Your task to perform on an android device: Open Google Image 0: 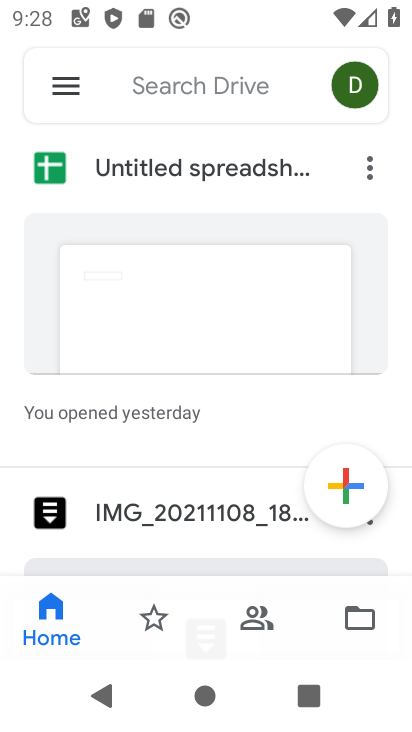
Step 0: press home button
Your task to perform on an android device: Open Google Image 1: 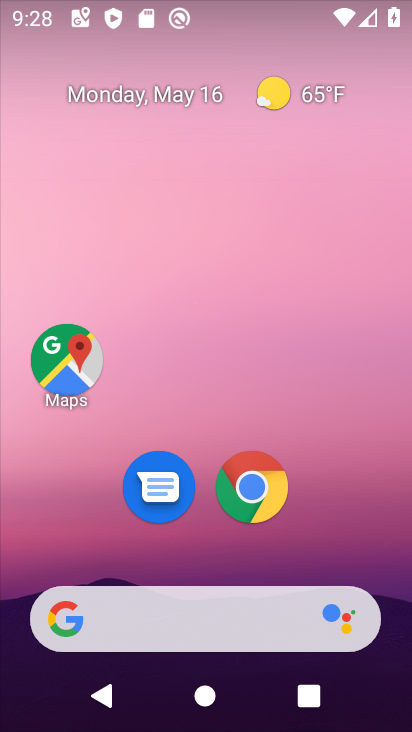
Step 1: drag from (370, 265) to (372, 131)
Your task to perform on an android device: Open Google Image 2: 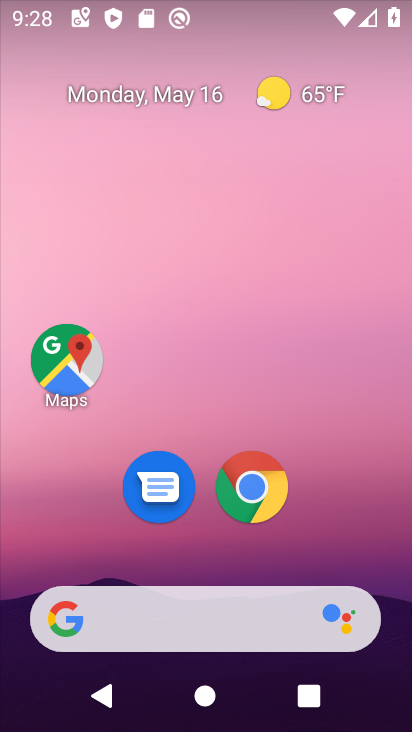
Step 2: drag from (369, 544) to (380, 58)
Your task to perform on an android device: Open Google Image 3: 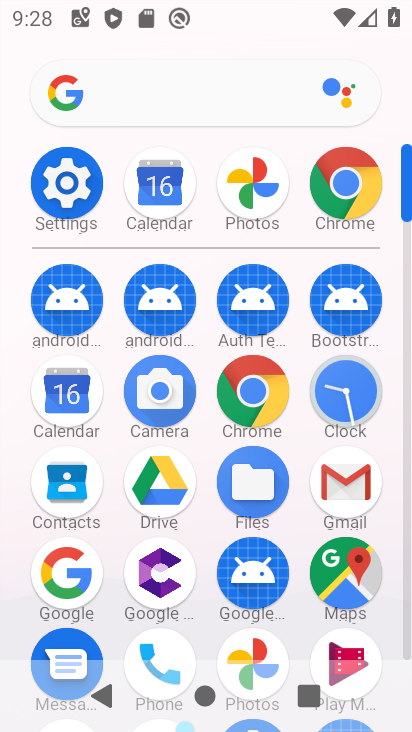
Step 3: click (50, 592)
Your task to perform on an android device: Open Google Image 4: 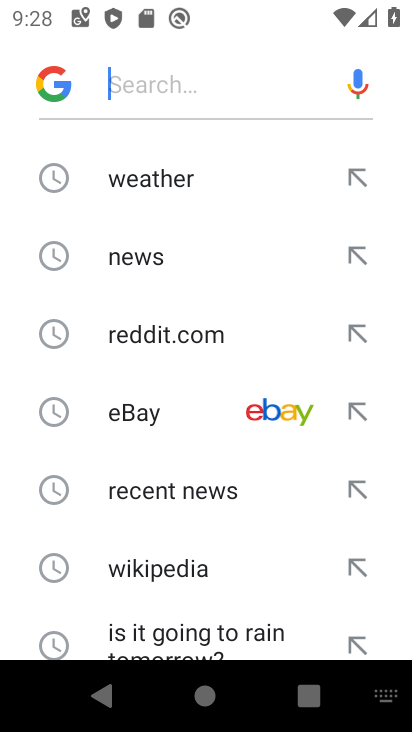
Step 4: task complete